Your task to perform on an android device: Open the web browser Image 0: 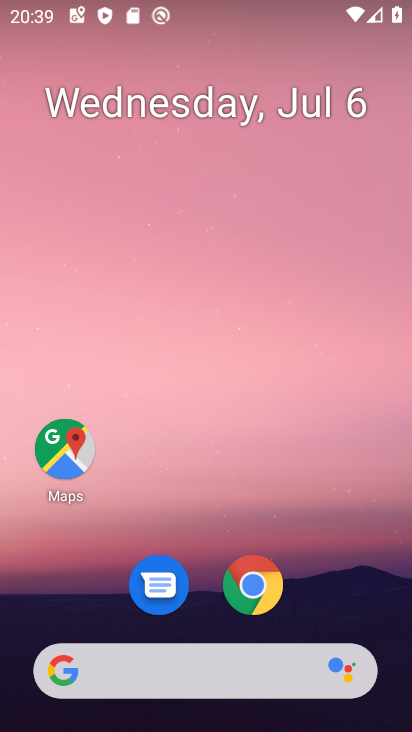
Step 0: click (187, 675)
Your task to perform on an android device: Open the web browser Image 1: 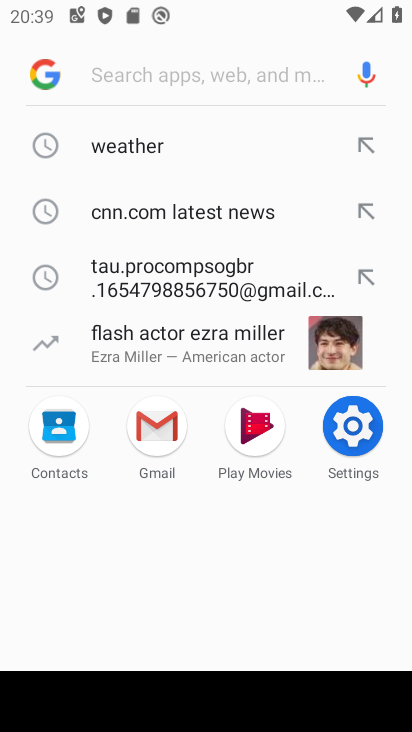
Step 1: task complete